Your task to perform on an android device: When is my next appointment? Image 0: 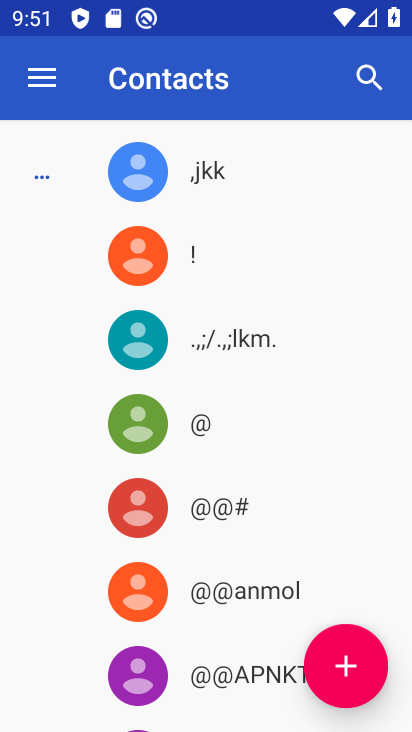
Step 0: press home button
Your task to perform on an android device: When is my next appointment? Image 1: 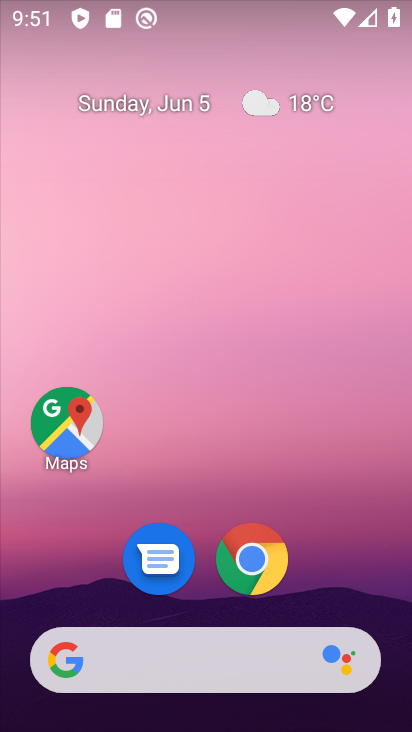
Step 1: drag from (302, 598) to (280, 116)
Your task to perform on an android device: When is my next appointment? Image 2: 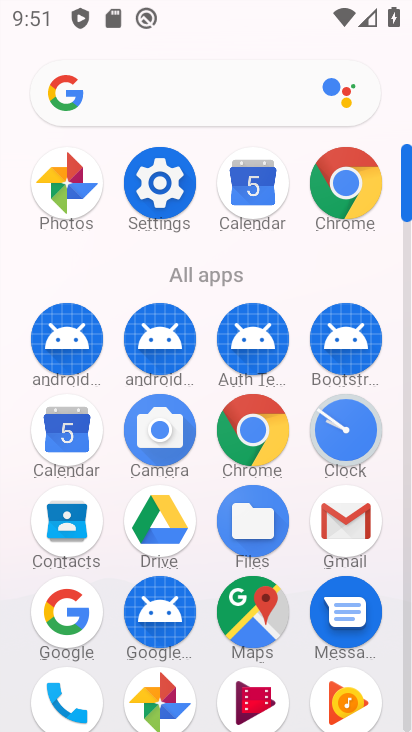
Step 2: click (50, 435)
Your task to perform on an android device: When is my next appointment? Image 3: 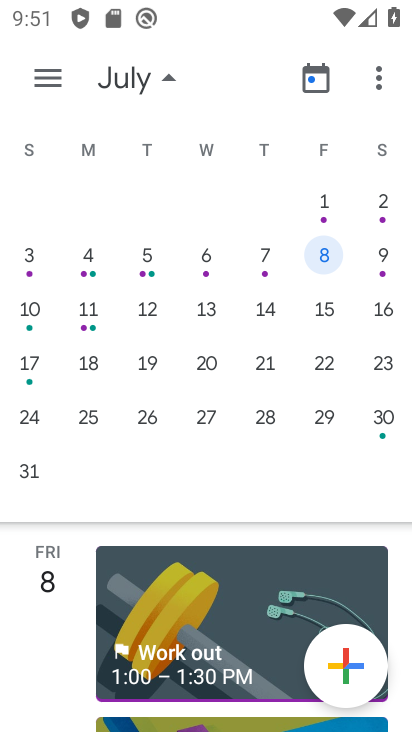
Step 3: drag from (50, 214) to (349, 220)
Your task to perform on an android device: When is my next appointment? Image 4: 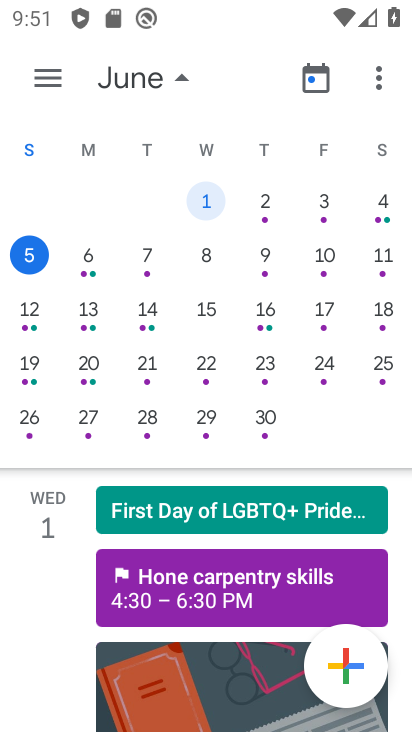
Step 4: click (23, 250)
Your task to perform on an android device: When is my next appointment? Image 5: 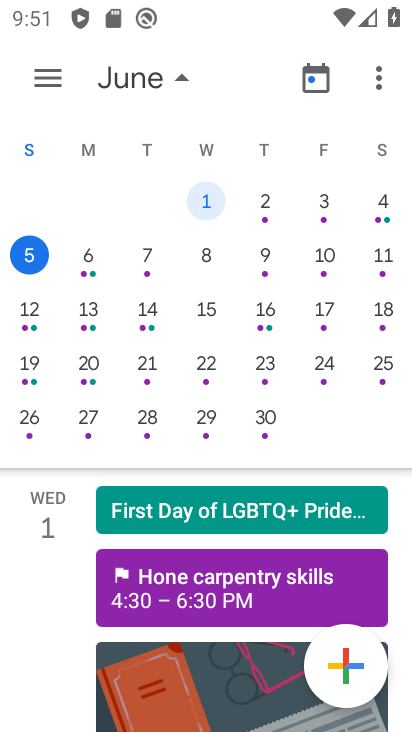
Step 5: click (92, 257)
Your task to perform on an android device: When is my next appointment? Image 6: 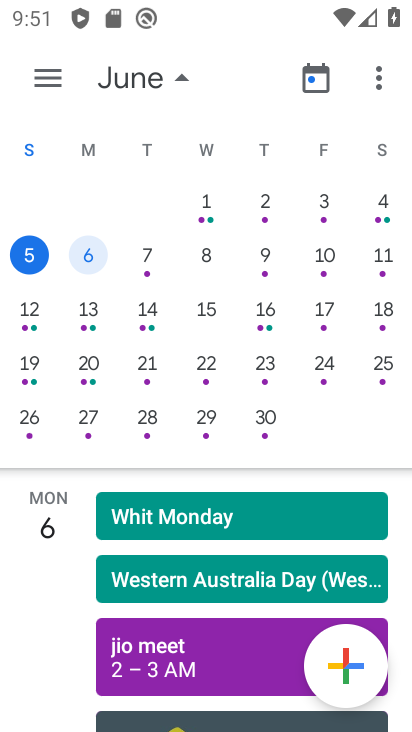
Step 6: task complete